Your task to perform on an android device: Is it going to rain tomorrow? Image 0: 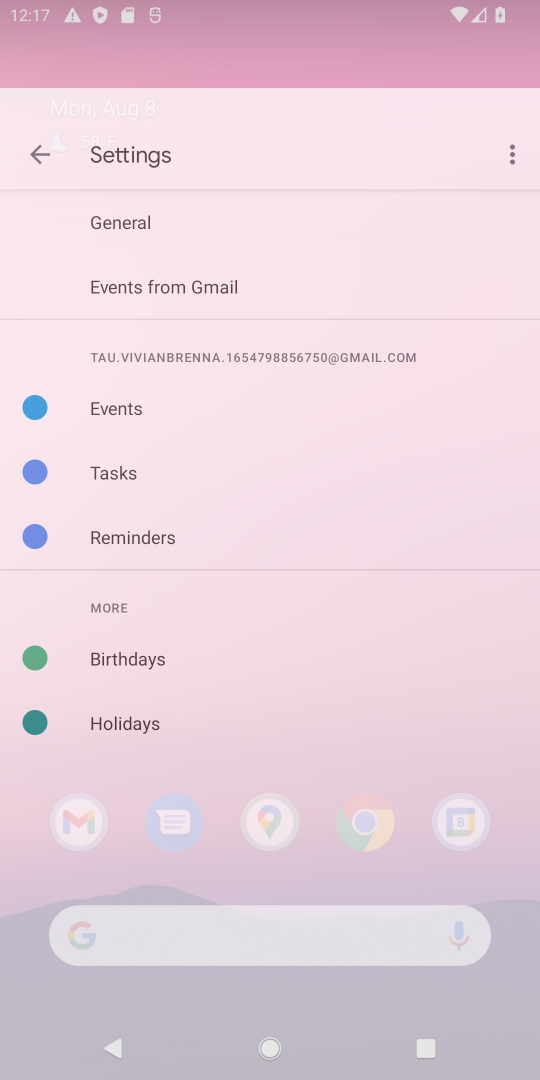
Step 0: press home button
Your task to perform on an android device: Is it going to rain tomorrow? Image 1: 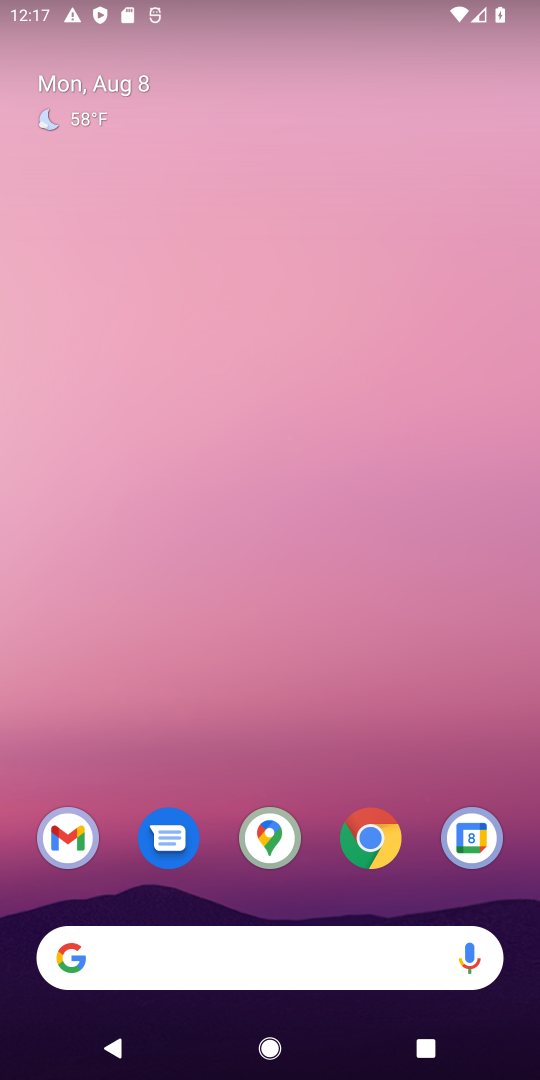
Step 1: click (72, 957)
Your task to perform on an android device: Is it going to rain tomorrow? Image 2: 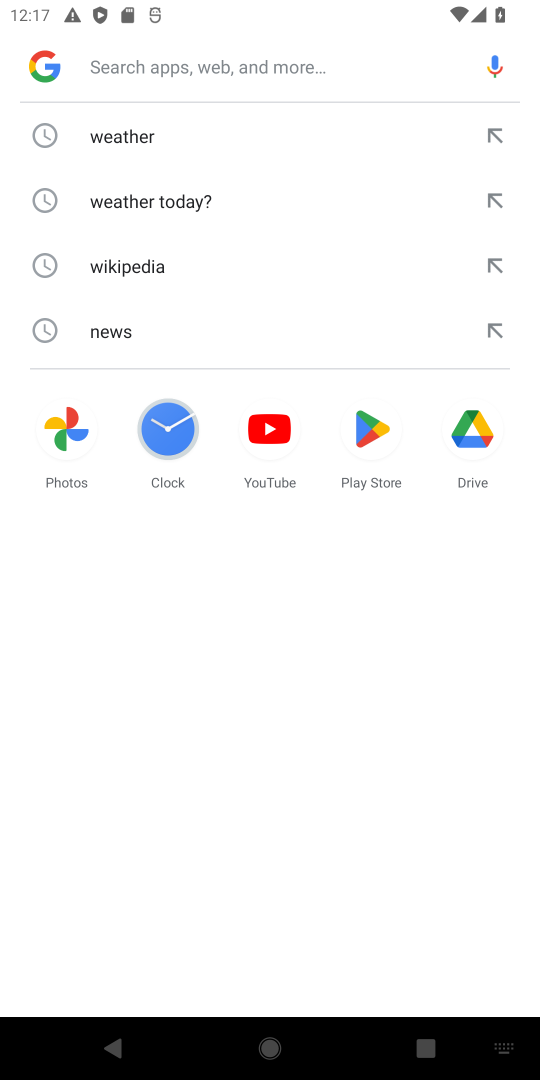
Step 2: type "rain tomorrow?"
Your task to perform on an android device: Is it going to rain tomorrow? Image 3: 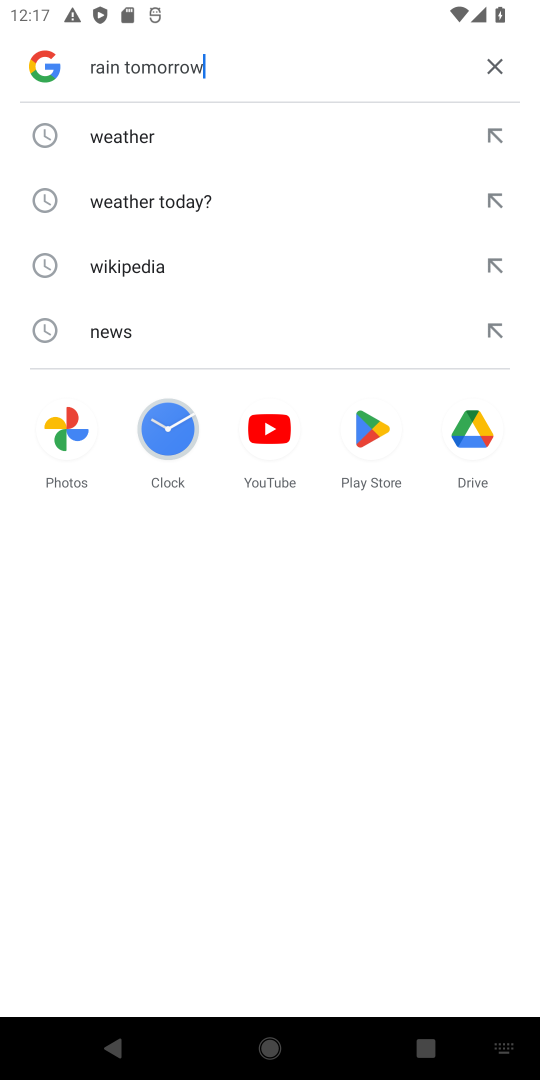
Step 3: press enter
Your task to perform on an android device: Is it going to rain tomorrow? Image 4: 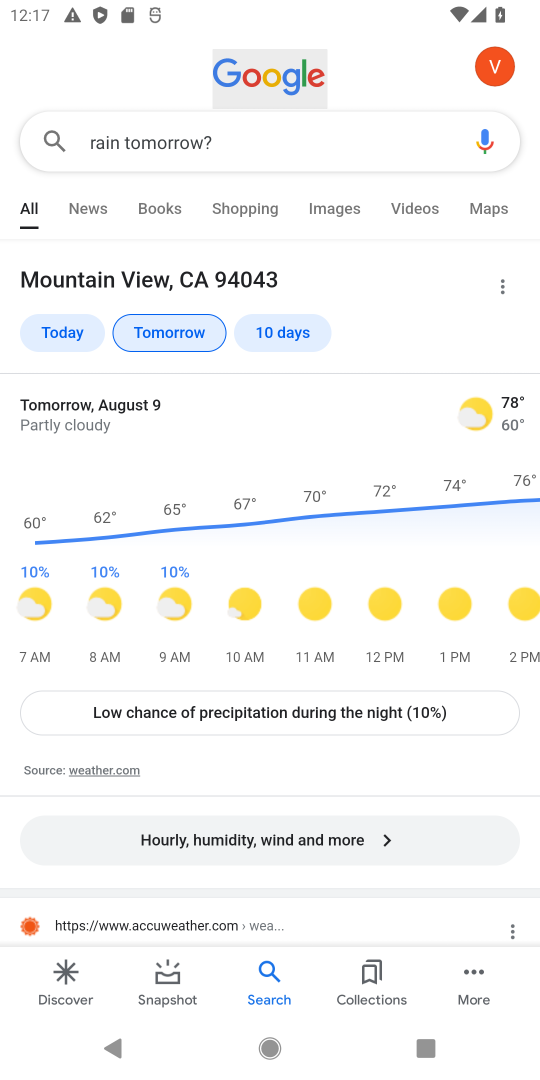
Step 4: task complete